Your task to perform on an android device: Open the calendar app, open the side menu, and click the "Day" option Image 0: 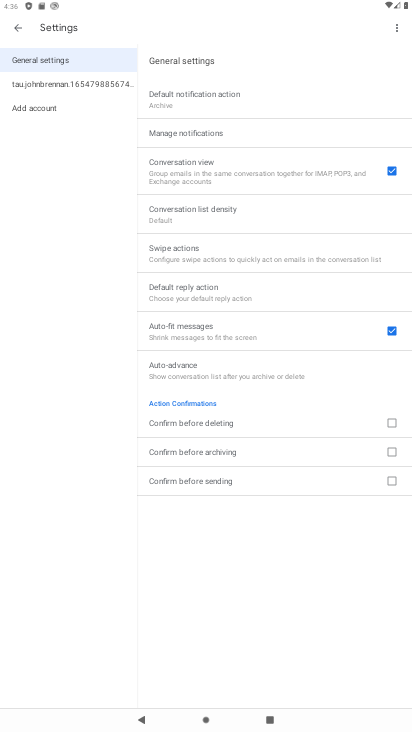
Step 0: press home button
Your task to perform on an android device: Open the calendar app, open the side menu, and click the "Day" option Image 1: 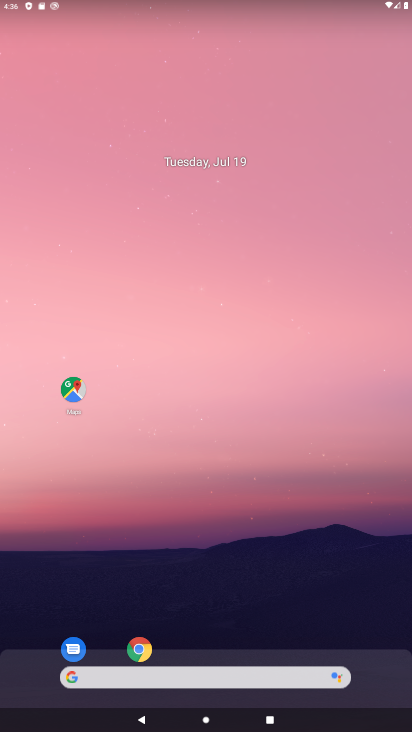
Step 1: drag from (236, 533) to (246, 43)
Your task to perform on an android device: Open the calendar app, open the side menu, and click the "Day" option Image 2: 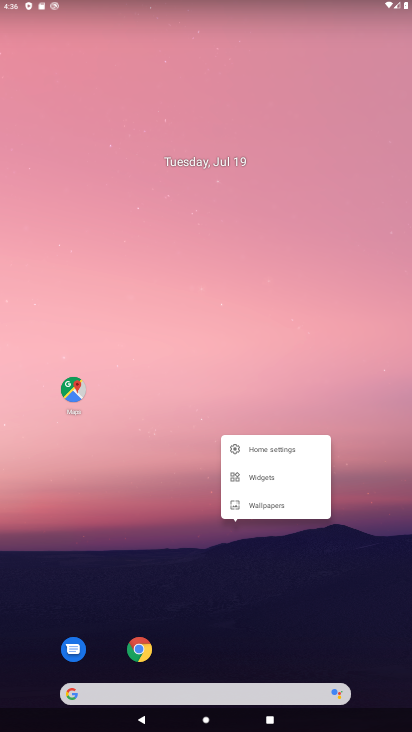
Step 2: click (170, 605)
Your task to perform on an android device: Open the calendar app, open the side menu, and click the "Day" option Image 3: 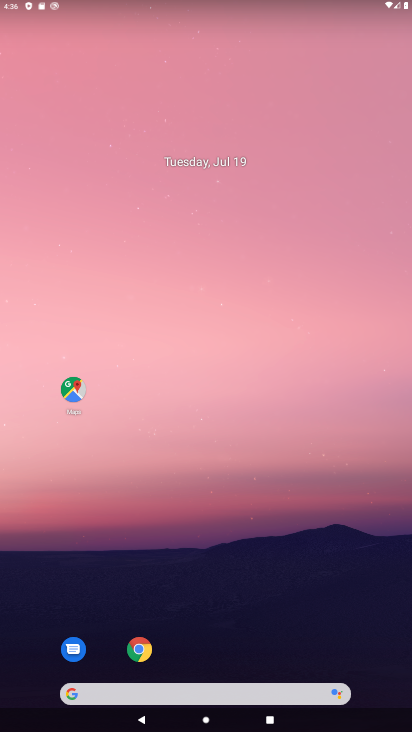
Step 3: drag from (170, 573) to (245, 50)
Your task to perform on an android device: Open the calendar app, open the side menu, and click the "Day" option Image 4: 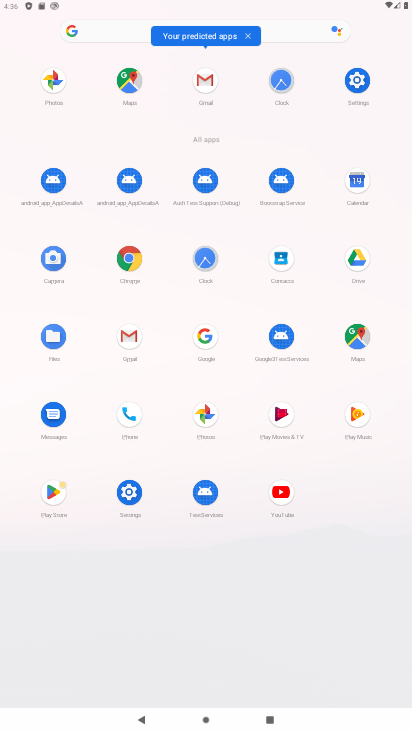
Step 4: click (357, 199)
Your task to perform on an android device: Open the calendar app, open the side menu, and click the "Day" option Image 5: 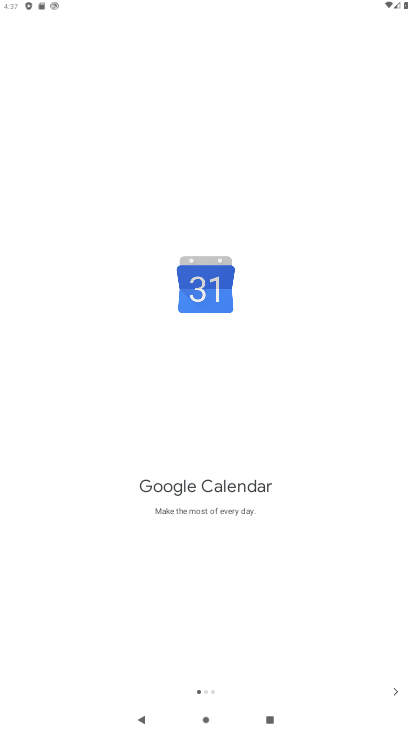
Step 5: click (395, 697)
Your task to perform on an android device: Open the calendar app, open the side menu, and click the "Day" option Image 6: 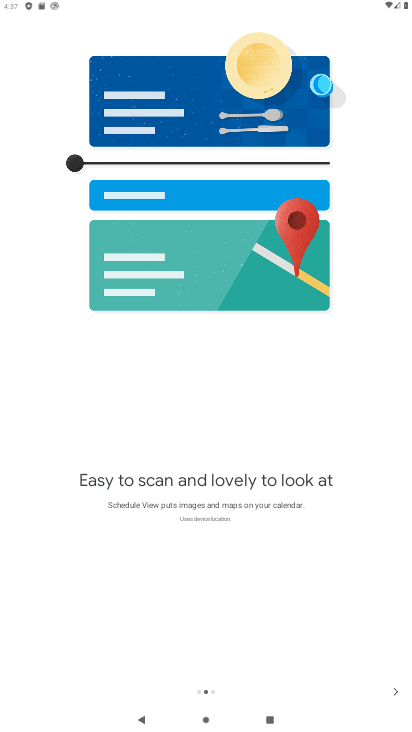
Step 6: click (395, 687)
Your task to perform on an android device: Open the calendar app, open the side menu, and click the "Day" option Image 7: 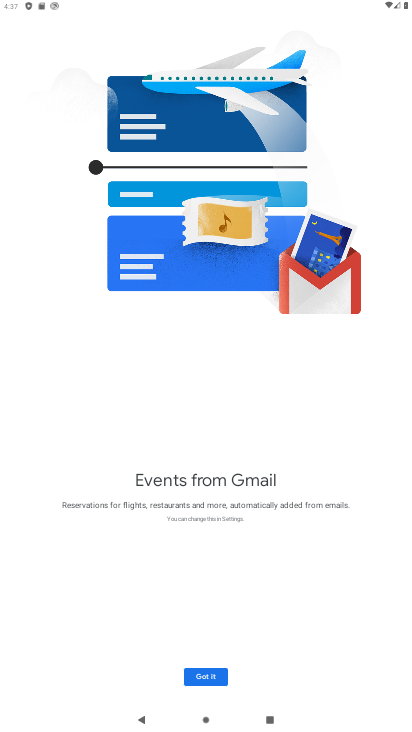
Step 7: click (214, 678)
Your task to perform on an android device: Open the calendar app, open the side menu, and click the "Day" option Image 8: 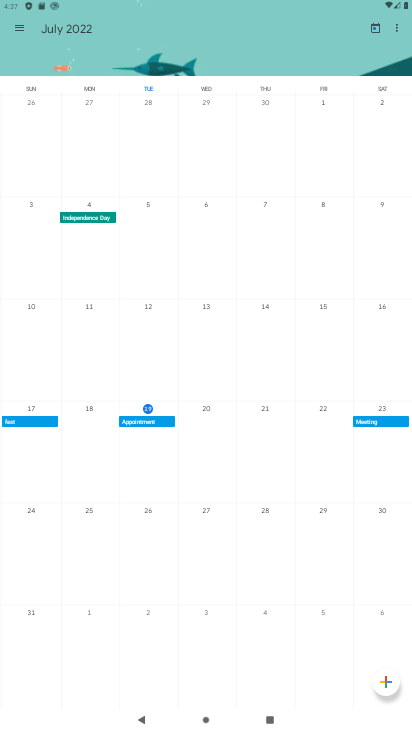
Step 8: click (26, 23)
Your task to perform on an android device: Open the calendar app, open the side menu, and click the "Day" option Image 9: 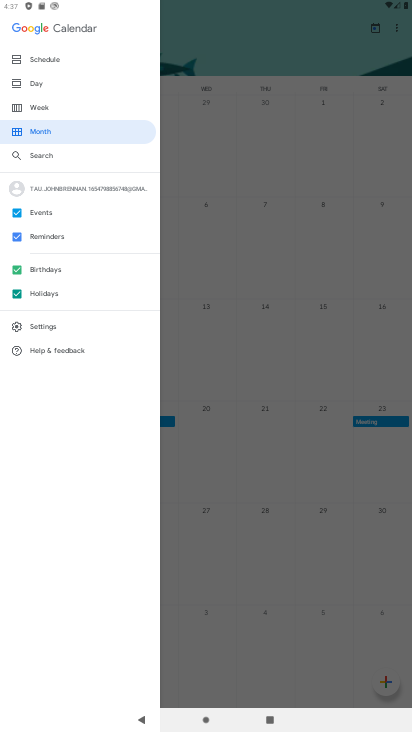
Step 9: click (29, 81)
Your task to perform on an android device: Open the calendar app, open the side menu, and click the "Day" option Image 10: 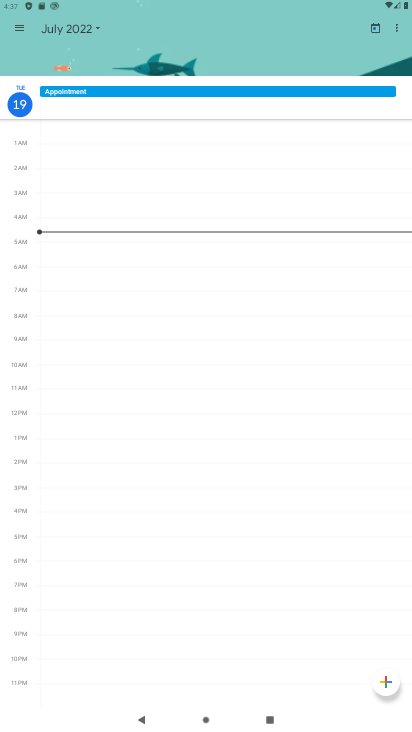
Step 10: task complete